Your task to perform on an android device: Toggle the flashlight Image 0: 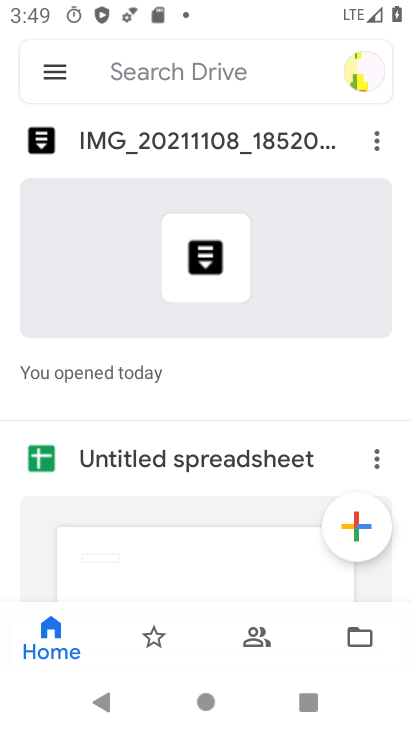
Step 0: press home button
Your task to perform on an android device: Toggle the flashlight Image 1: 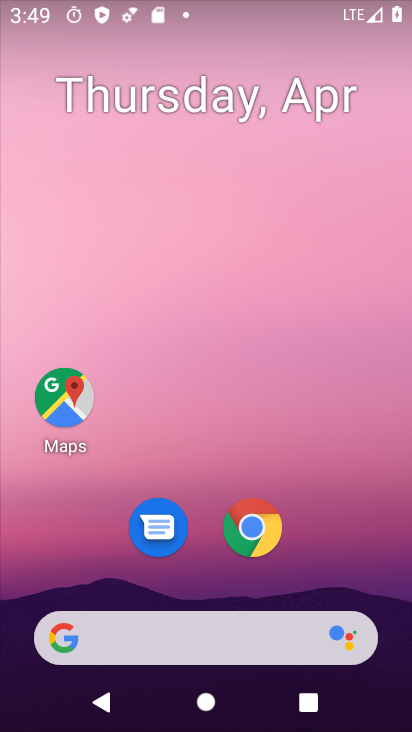
Step 1: task complete